Your task to perform on an android device: Open the calendar app, open the side menu, and click the "Day" option Image 0: 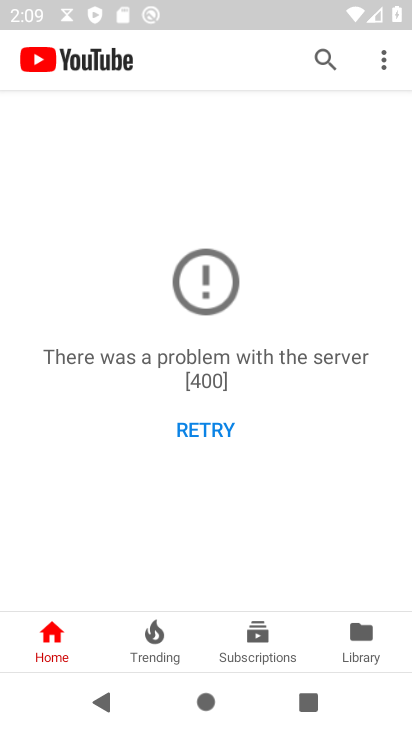
Step 0: press back button
Your task to perform on an android device: Open the calendar app, open the side menu, and click the "Day" option Image 1: 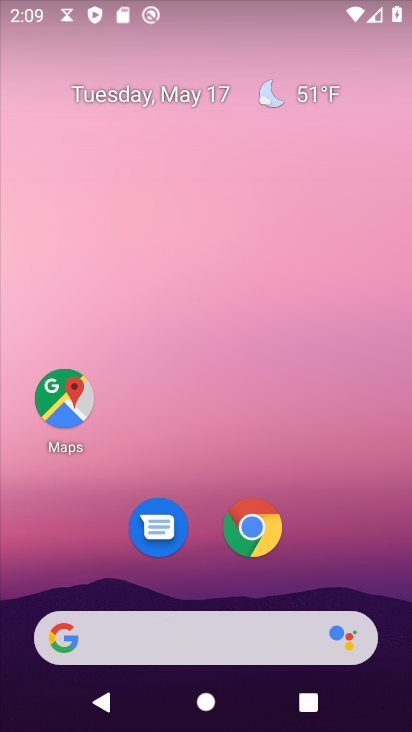
Step 1: drag from (309, 575) to (262, 91)
Your task to perform on an android device: Open the calendar app, open the side menu, and click the "Day" option Image 2: 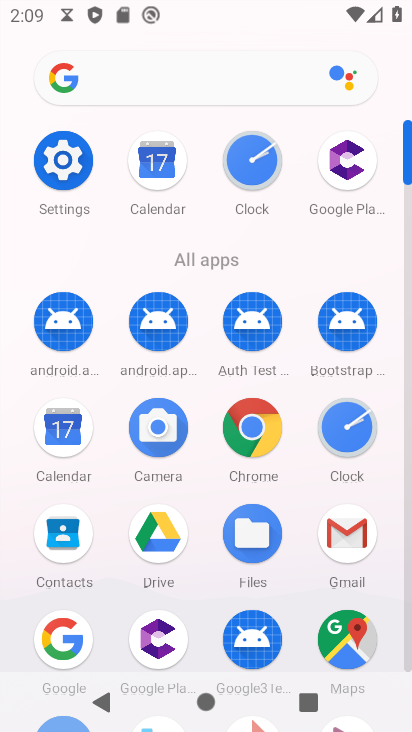
Step 2: click (64, 431)
Your task to perform on an android device: Open the calendar app, open the side menu, and click the "Day" option Image 3: 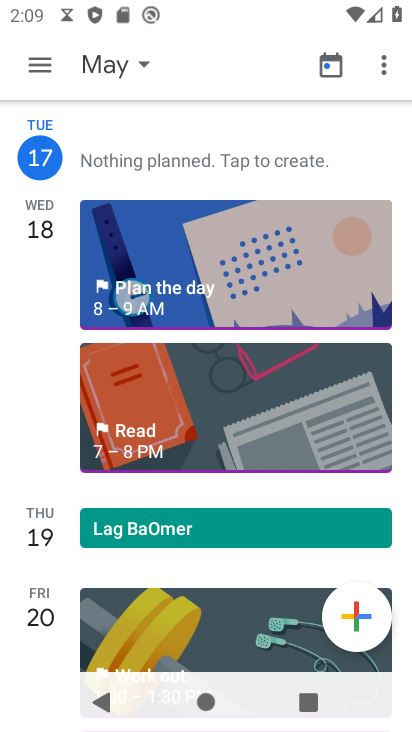
Step 3: click (39, 58)
Your task to perform on an android device: Open the calendar app, open the side menu, and click the "Day" option Image 4: 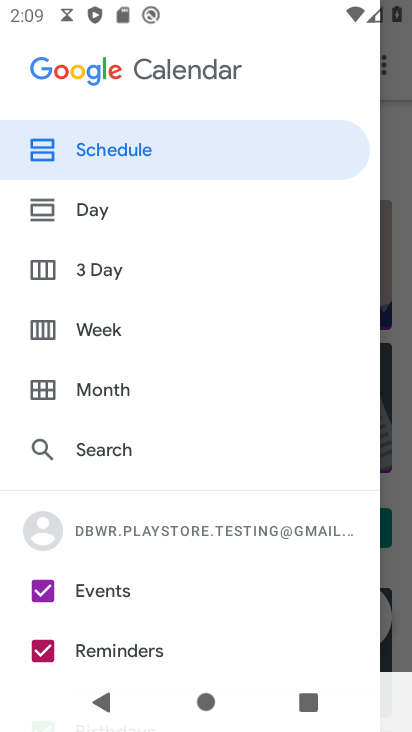
Step 4: click (82, 211)
Your task to perform on an android device: Open the calendar app, open the side menu, and click the "Day" option Image 5: 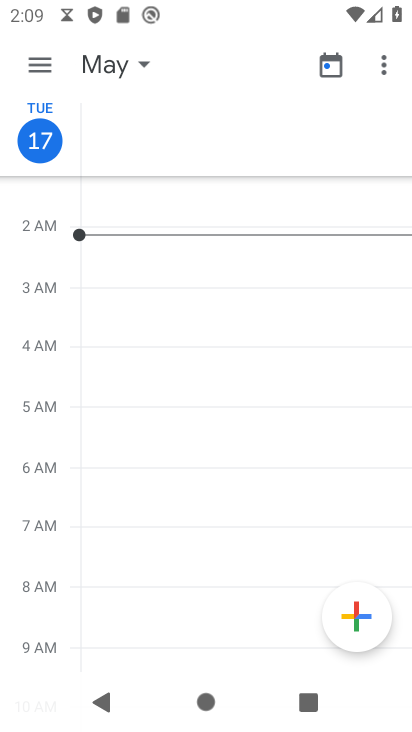
Step 5: task complete